Your task to perform on an android device: snooze an email in the gmail app Image 0: 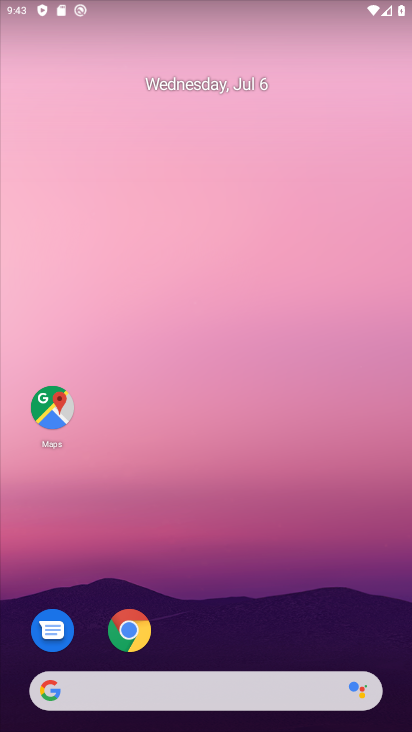
Step 0: drag from (260, 653) to (236, 112)
Your task to perform on an android device: snooze an email in the gmail app Image 1: 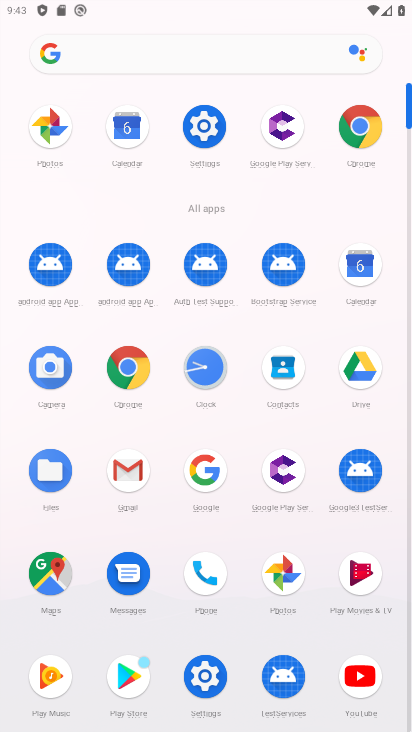
Step 1: click (128, 470)
Your task to perform on an android device: snooze an email in the gmail app Image 2: 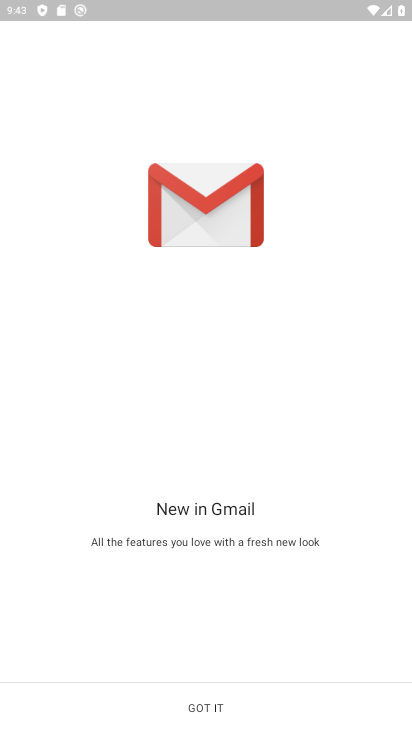
Step 2: click (78, 691)
Your task to perform on an android device: snooze an email in the gmail app Image 3: 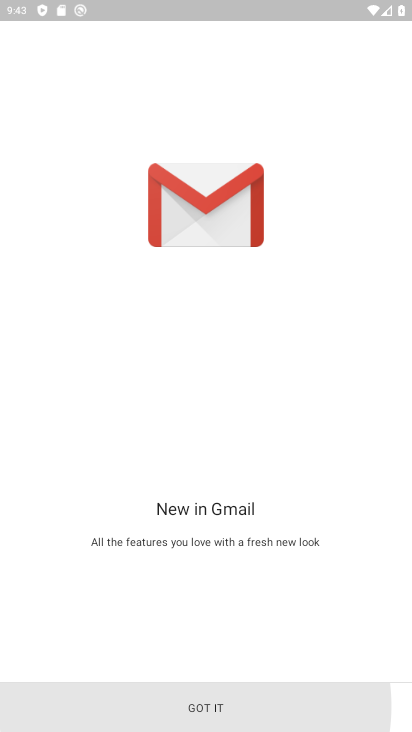
Step 3: click (78, 691)
Your task to perform on an android device: snooze an email in the gmail app Image 4: 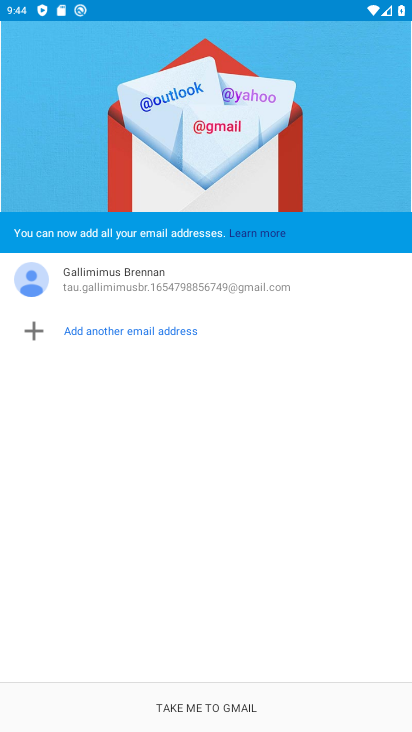
Step 4: click (91, 711)
Your task to perform on an android device: snooze an email in the gmail app Image 5: 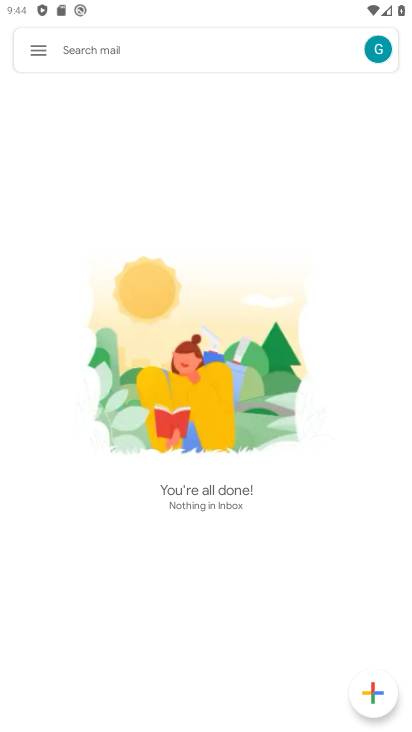
Step 5: task complete